Your task to perform on an android device: When is my next meeting? Image 0: 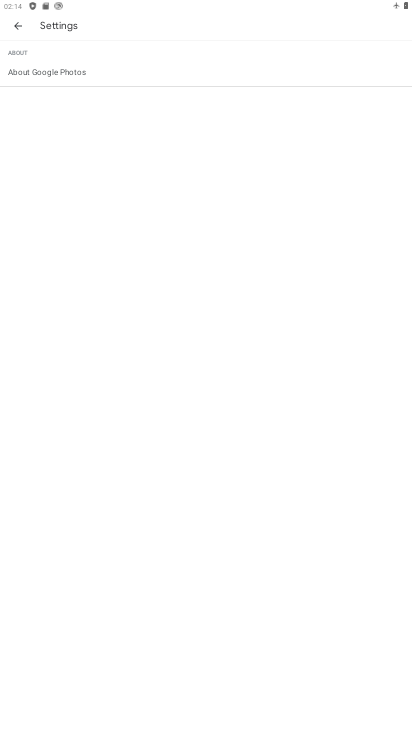
Step 0: press home button
Your task to perform on an android device: When is my next meeting? Image 1: 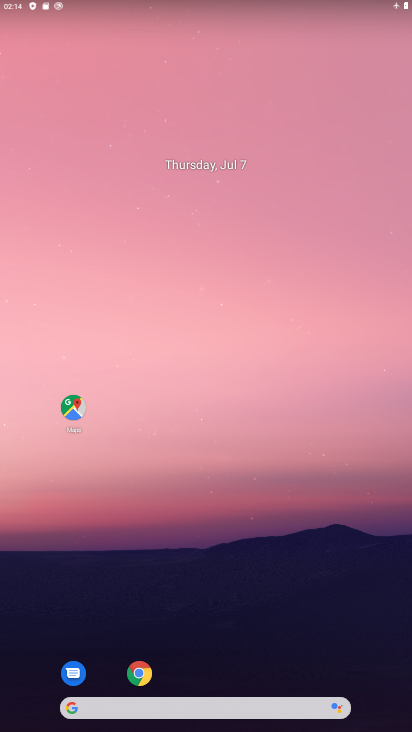
Step 1: drag from (230, 635) to (234, 181)
Your task to perform on an android device: When is my next meeting? Image 2: 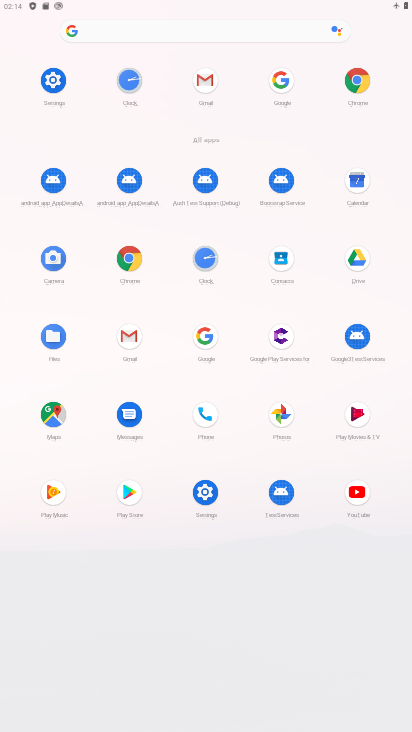
Step 2: click (349, 191)
Your task to perform on an android device: When is my next meeting? Image 3: 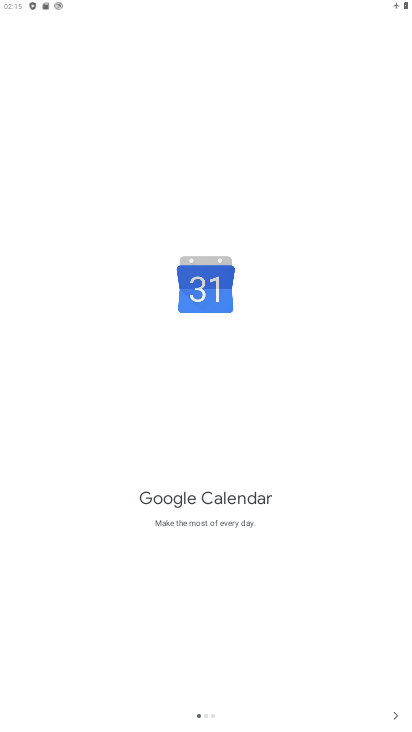
Step 3: drag from (281, 614) to (134, 619)
Your task to perform on an android device: When is my next meeting? Image 4: 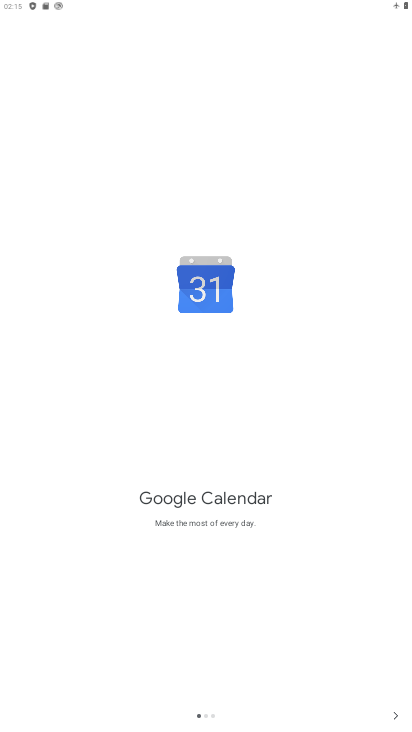
Step 4: click (389, 716)
Your task to perform on an android device: When is my next meeting? Image 5: 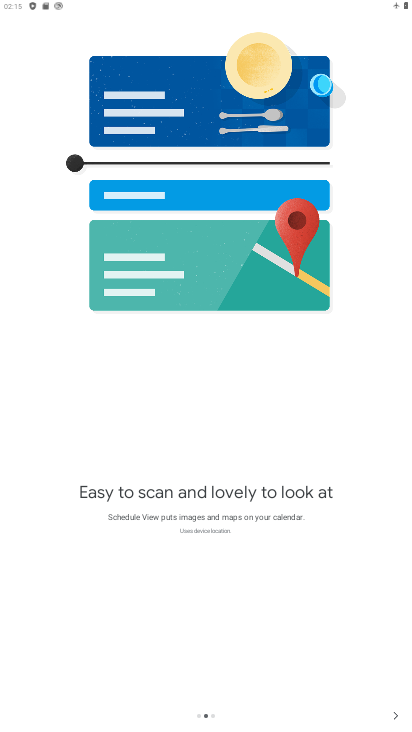
Step 5: click (389, 716)
Your task to perform on an android device: When is my next meeting? Image 6: 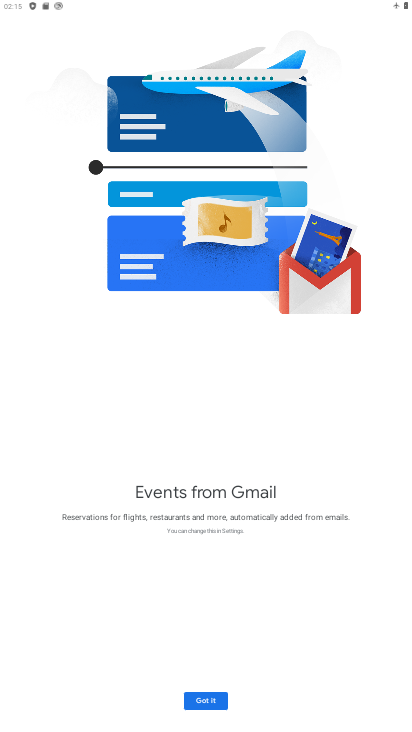
Step 6: click (209, 700)
Your task to perform on an android device: When is my next meeting? Image 7: 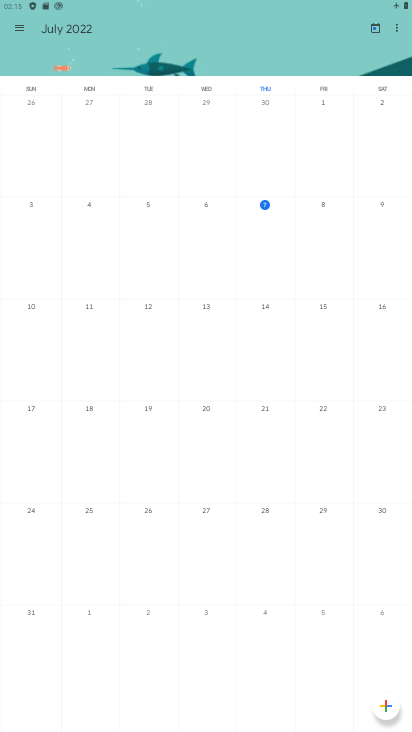
Step 7: click (22, 26)
Your task to perform on an android device: When is my next meeting? Image 8: 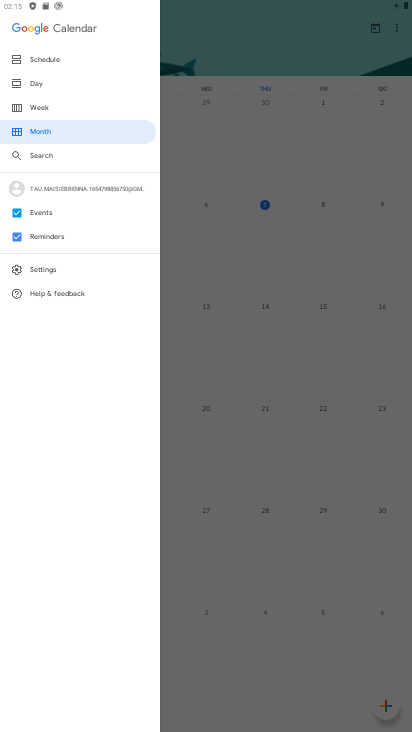
Step 8: click (13, 235)
Your task to perform on an android device: When is my next meeting? Image 9: 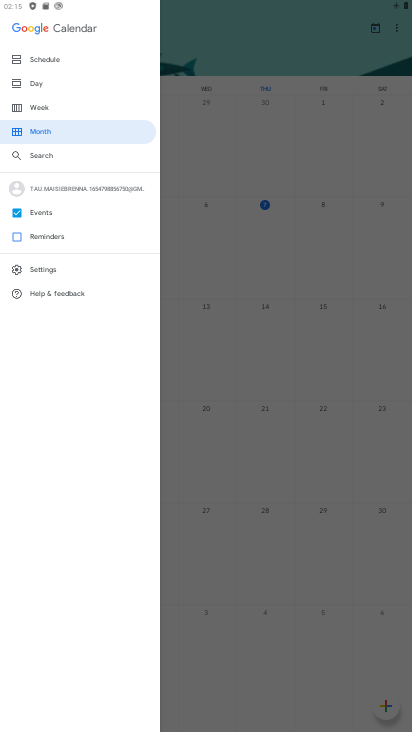
Step 9: click (47, 56)
Your task to perform on an android device: When is my next meeting? Image 10: 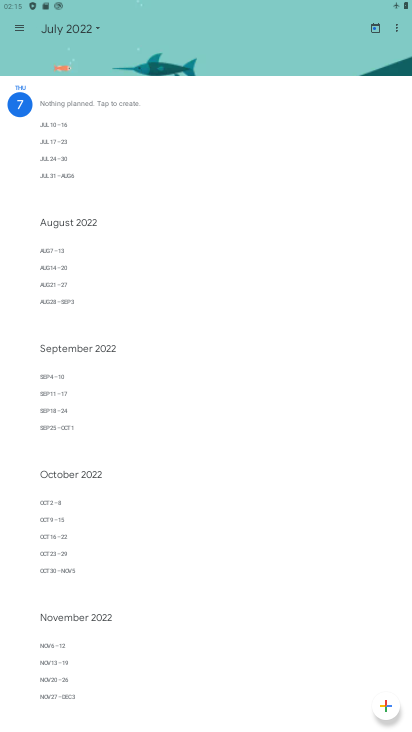
Step 10: task complete